Your task to perform on an android device: turn on wifi Image 0: 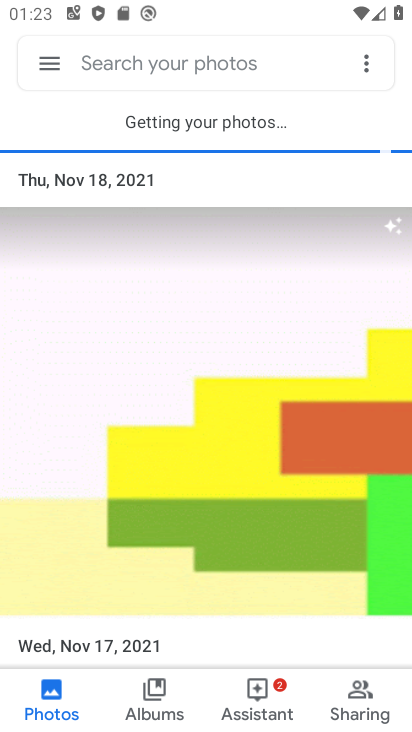
Step 0: press home button
Your task to perform on an android device: turn on wifi Image 1: 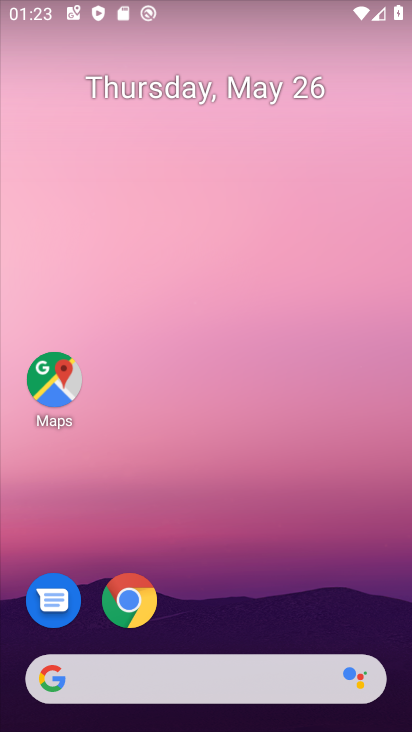
Step 1: drag from (237, 505) to (235, 106)
Your task to perform on an android device: turn on wifi Image 2: 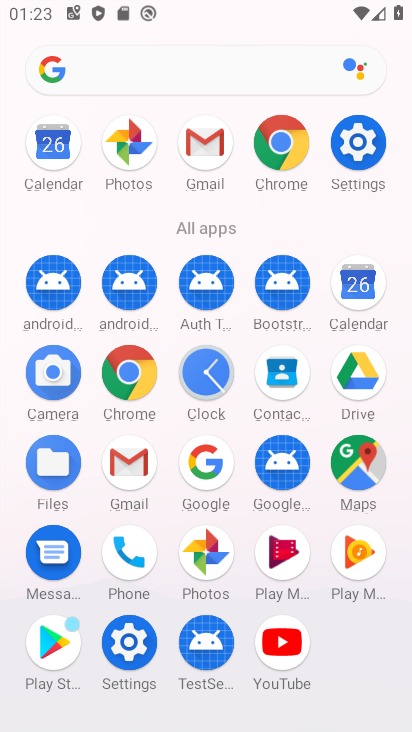
Step 2: click (366, 138)
Your task to perform on an android device: turn on wifi Image 3: 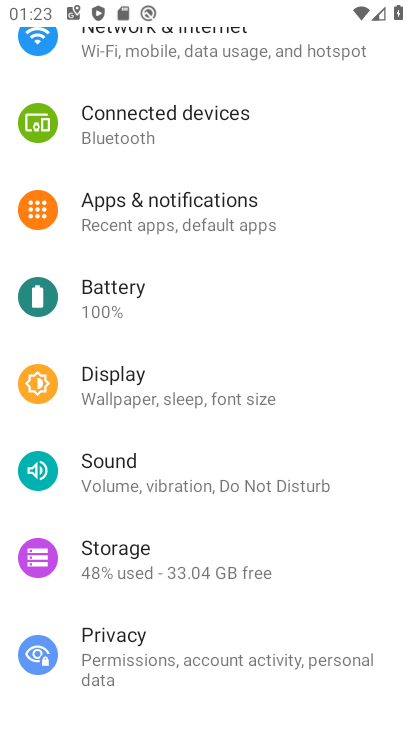
Step 3: drag from (175, 252) to (175, 583)
Your task to perform on an android device: turn on wifi Image 4: 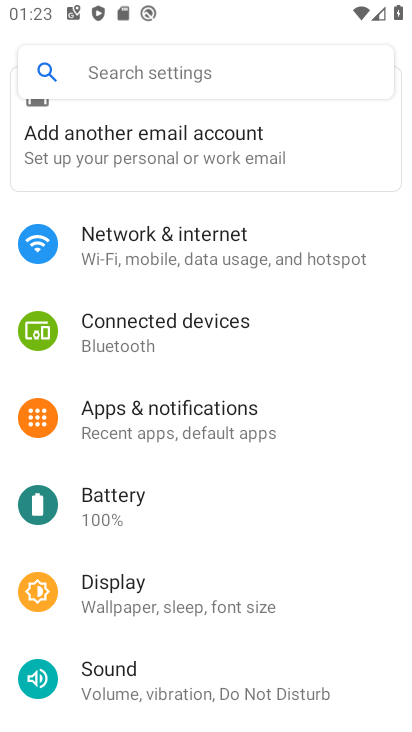
Step 4: click (190, 273)
Your task to perform on an android device: turn on wifi Image 5: 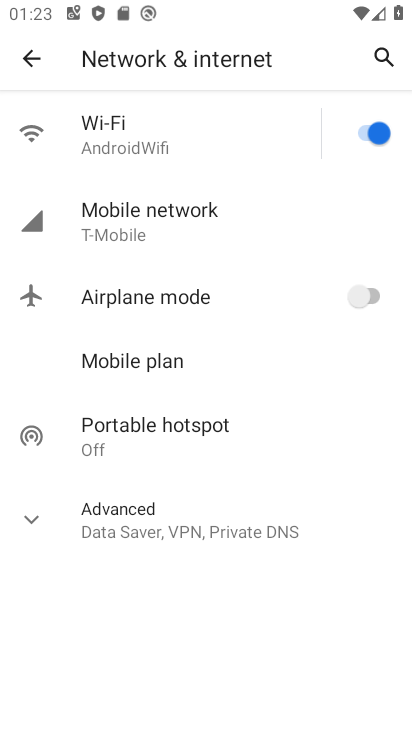
Step 5: task complete